Your task to perform on an android device: Open battery settings Image 0: 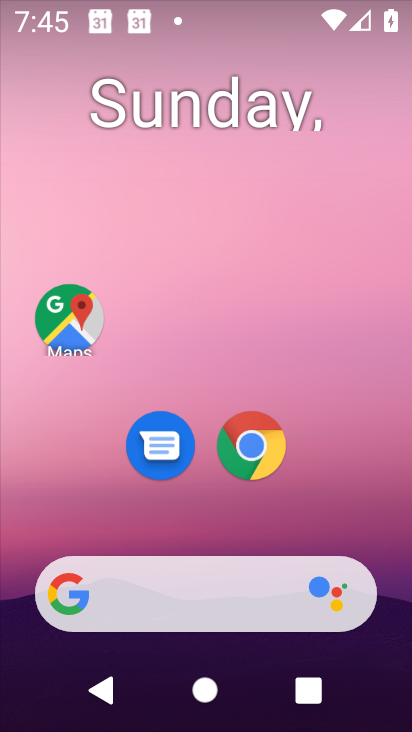
Step 0: drag from (22, 508) to (195, 73)
Your task to perform on an android device: Open battery settings Image 1: 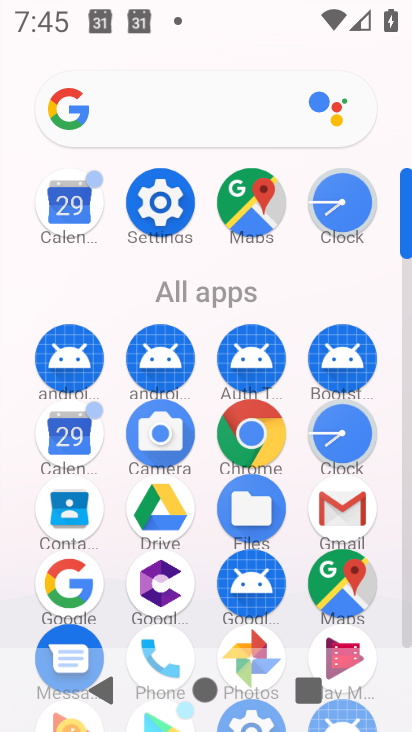
Step 1: click (123, 199)
Your task to perform on an android device: Open battery settings Image 2: 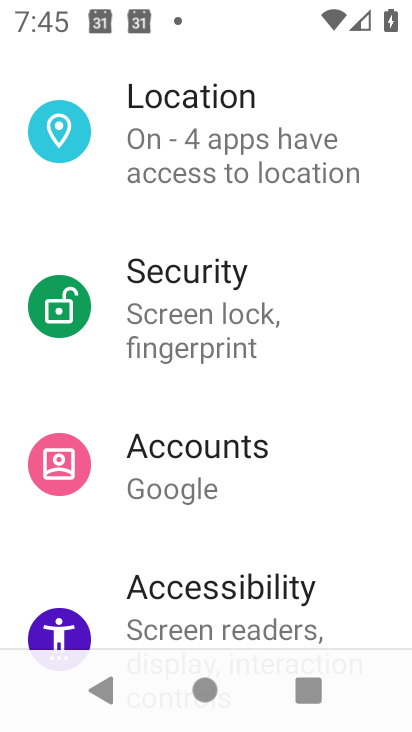
Step 2: drag from (194, 166) to (167, 575)
Your task to perform on an android device: Open battery settings Image 3: 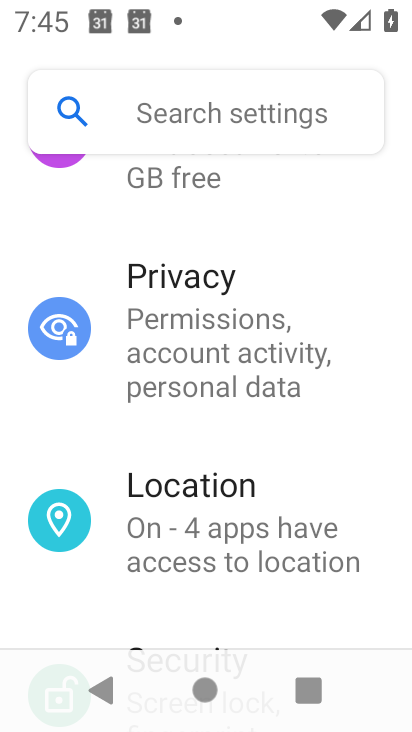
Step 3: drag from (217, 398) to (296, 174)
Your task to perform on an android device: Open battery settings Image 4: 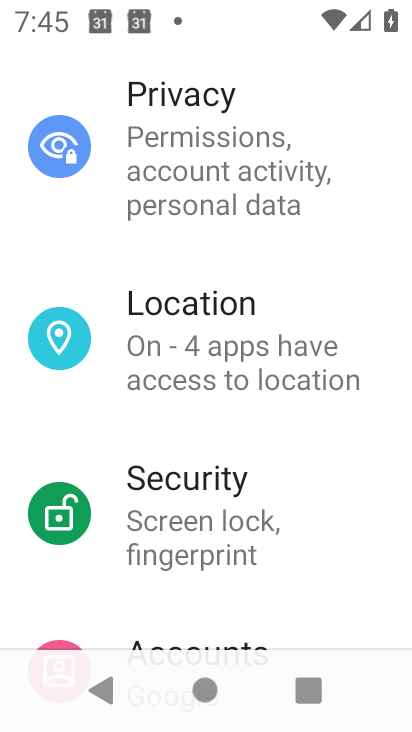
Step 4: drag from (39, 508) to (239, 145)
Your task to perform on an android device: Open battery settings Image 5: 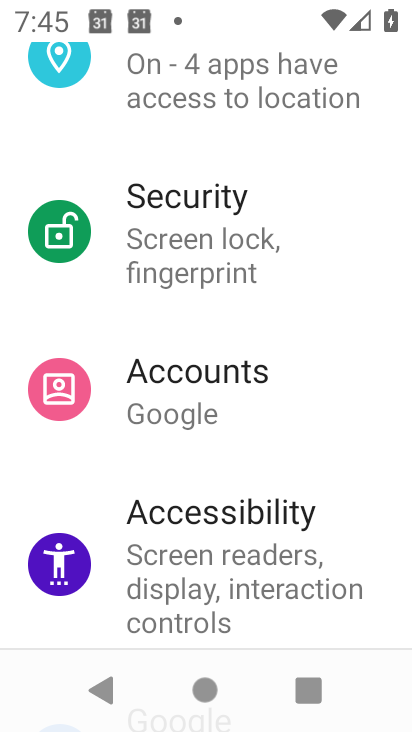
Step 5: drag from (0, 612) to (234, 156)
Your task to perform on an android device: Open battery settings Image 6: 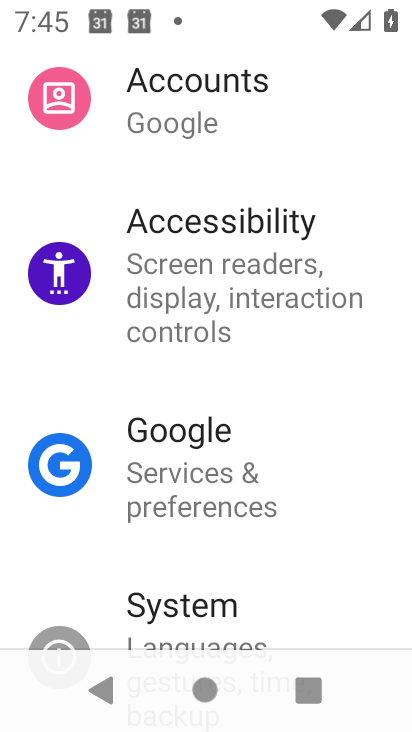
Step 6: drag from (116, 444) to (250, 191)
Your task to perform on an android device: Open battery settings Image 7: 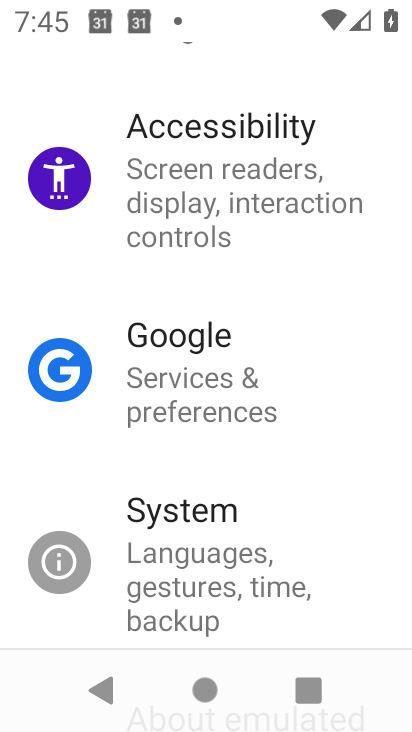
Step 7: drag from (142, 170) to (129, 604)
Your task to perform on an android device: Open battery settings Image 8: 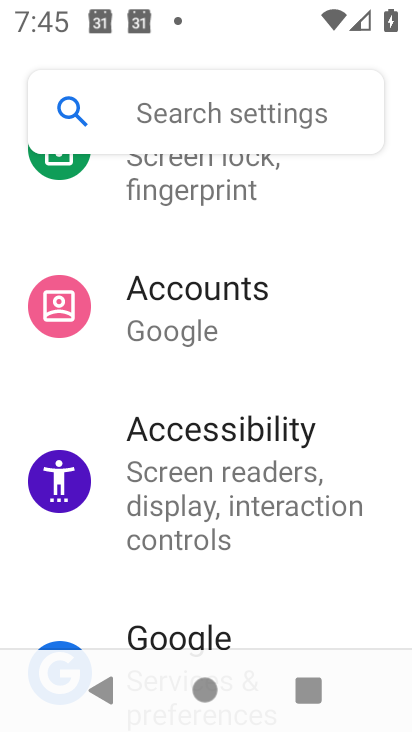
Step 8: drag from (171, 179) to (76, 554)
Your task to perform on an android device: Open battery settings Image 9: 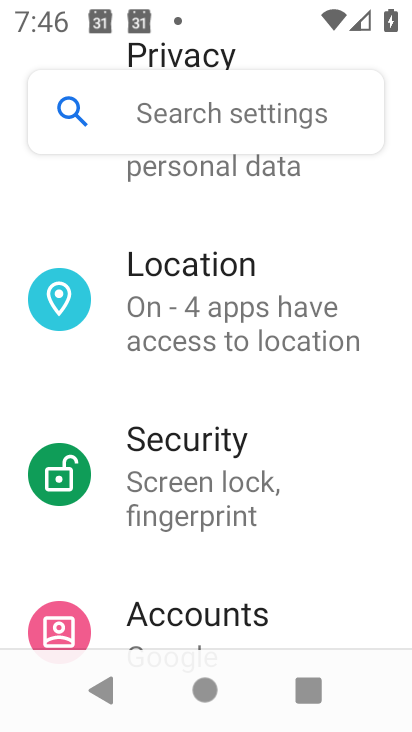
Step 9: drag from (155, 256) to (65, 665)
Your task to perform on an android device: Open battery settings Image 10: 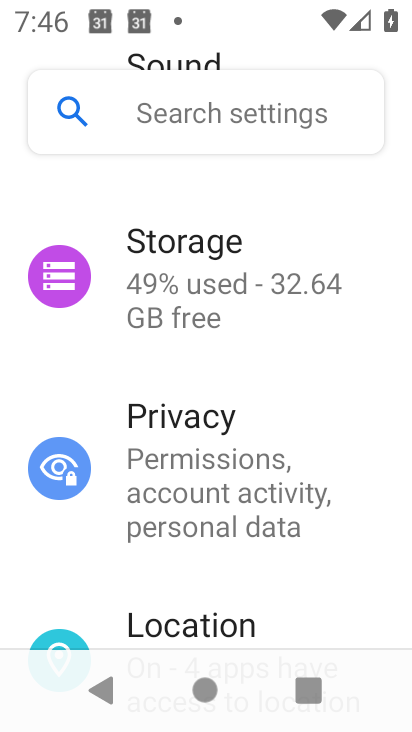
Step 10: drag from (148, 243) to (72, 597)
Your task to perform on an android device: Open battery settings Image 11: 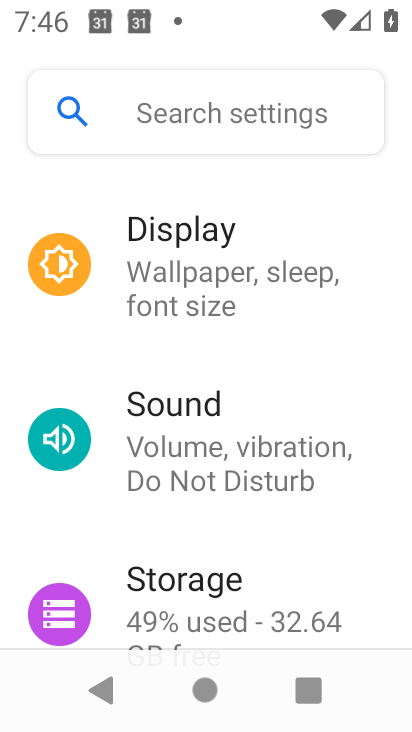
Step 11: drag from (200, 232) to (72, 505)
Your task to perform on an android device: Open battery settings Image 12: 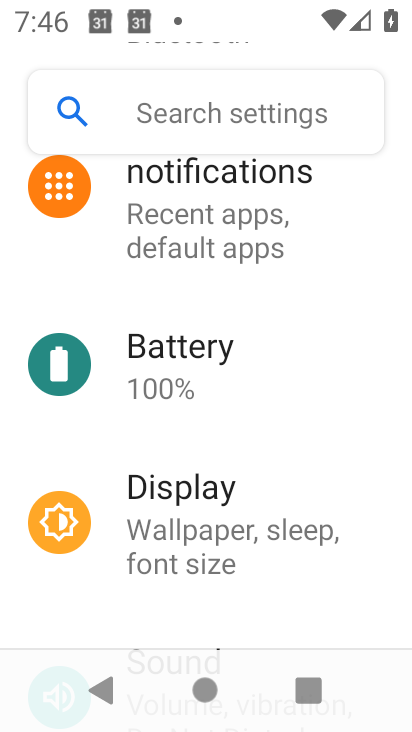
Step 12: click (136, 356)
Your task to perform on an android device: Open battery settings Image 13: 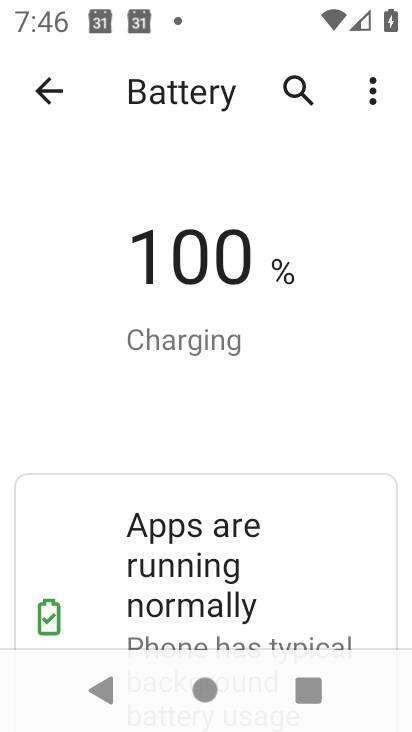
Step 13: task complete